Your task to perform on an android device: toggle notifications settings in the gmail app Image 0: 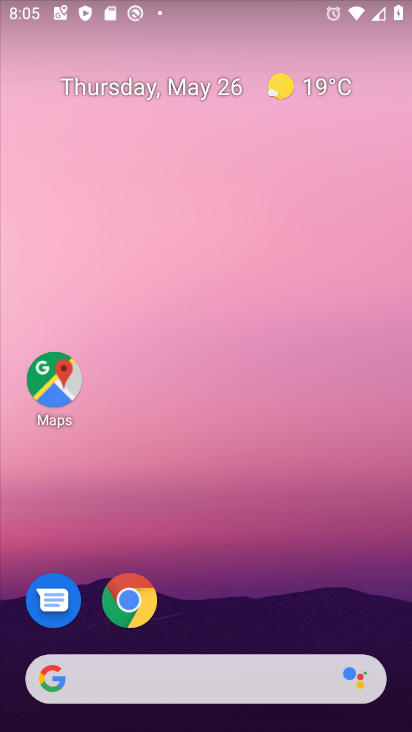
Step 0: drag from (242, 615) to (257, 314)
Your task to perform on an android device: toggle notifications settings in the gmail app Image 1: 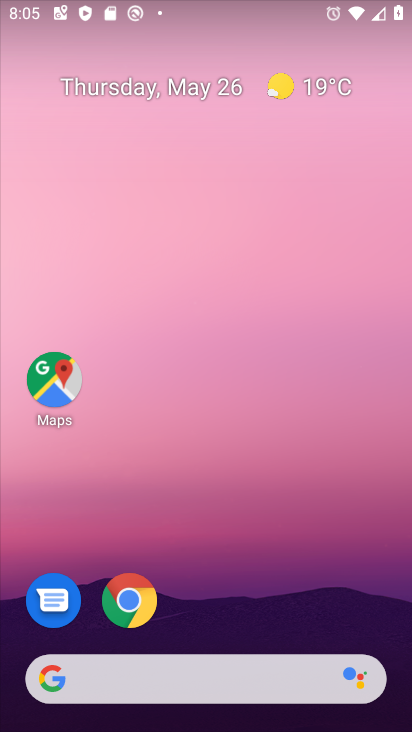
Step 1: drag from (237, 633) to (234, 323)
Your task to perform on an android device: toggle notifications settings in the gmail app Image 2: 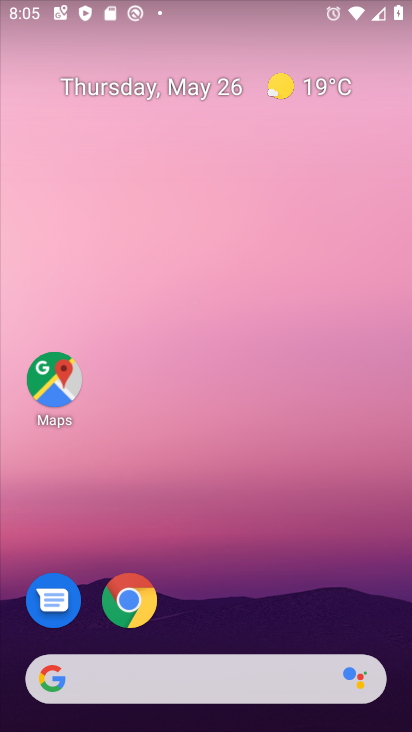
Step 2: drag from (239, 603) to (249, 159)
Your task to perform on an android device: toggle notifications settings in the gmail app Image 3: 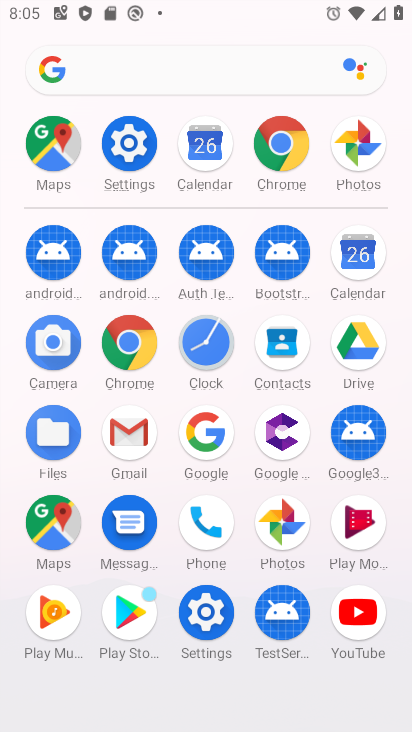
Step 3: click (135, 445)
Your task to perform on an android device: toggle notifications settings in the gmail app Image 4: 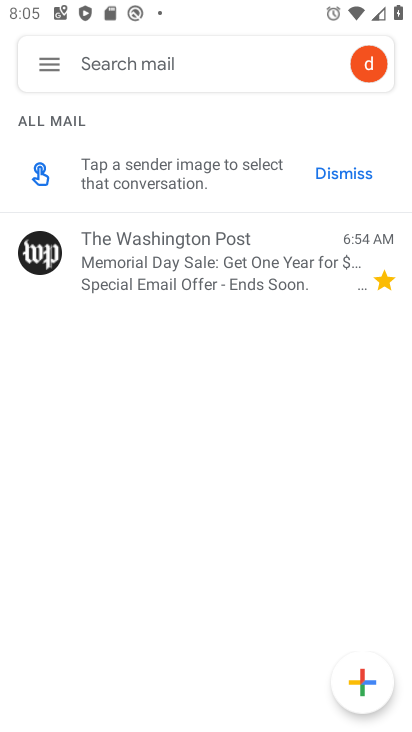
Step 4: click (57, 72)
Your task to perform on an android device: toggle notifications settings in the gmail app Image 5: 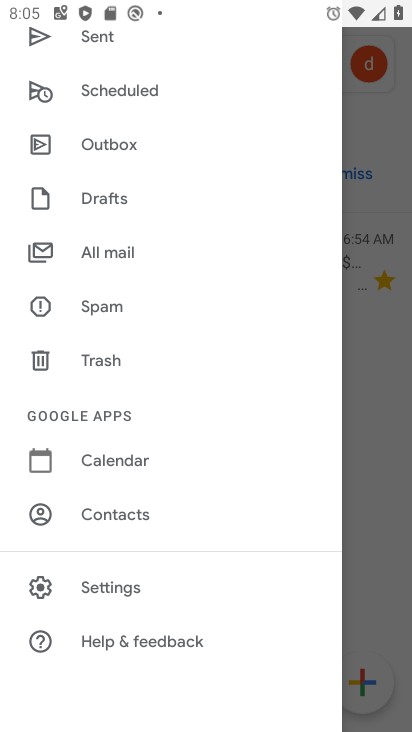
Step 5: click (124, 585)
Your task to perform on an android device: toggle notifications settings in the gmail app Image 6: 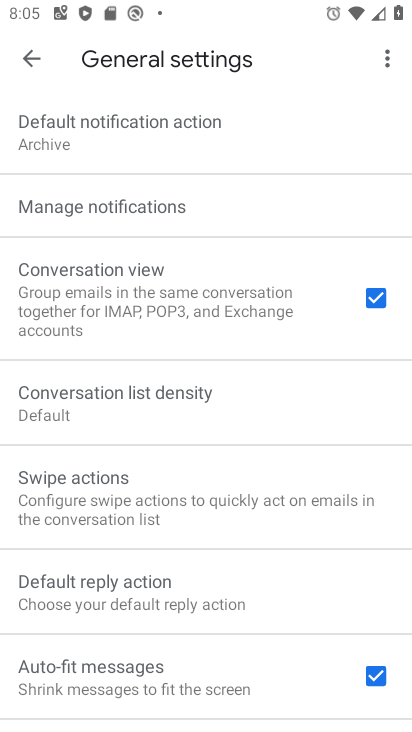
Step 6: click (124, 209)
Your task to perform on an android device: toggle notifications settings in the gmail app Image 7: 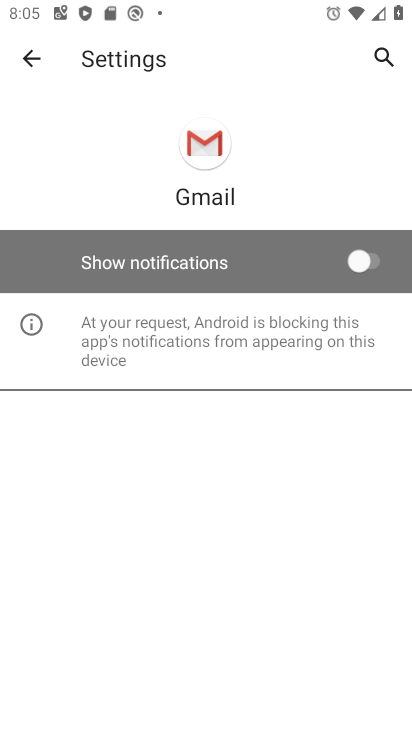
Step 7: click (358, 269)
Your task to perform on an android device: toggle notifications settings in the gmail app Image 8: 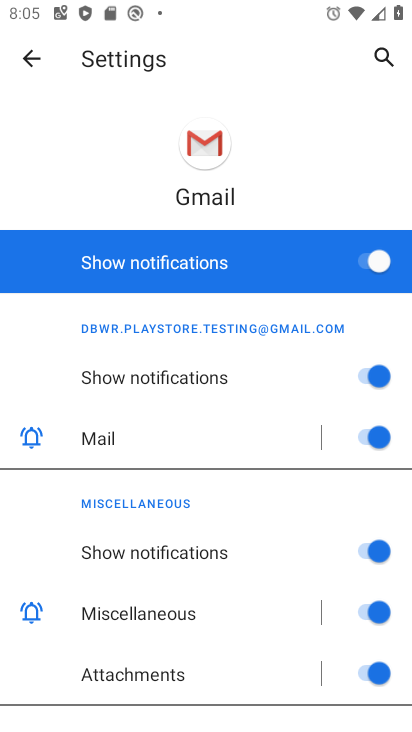
Step 8: task complete